Your task to perform on an android device: snooze an email in the gmail app Image 0: 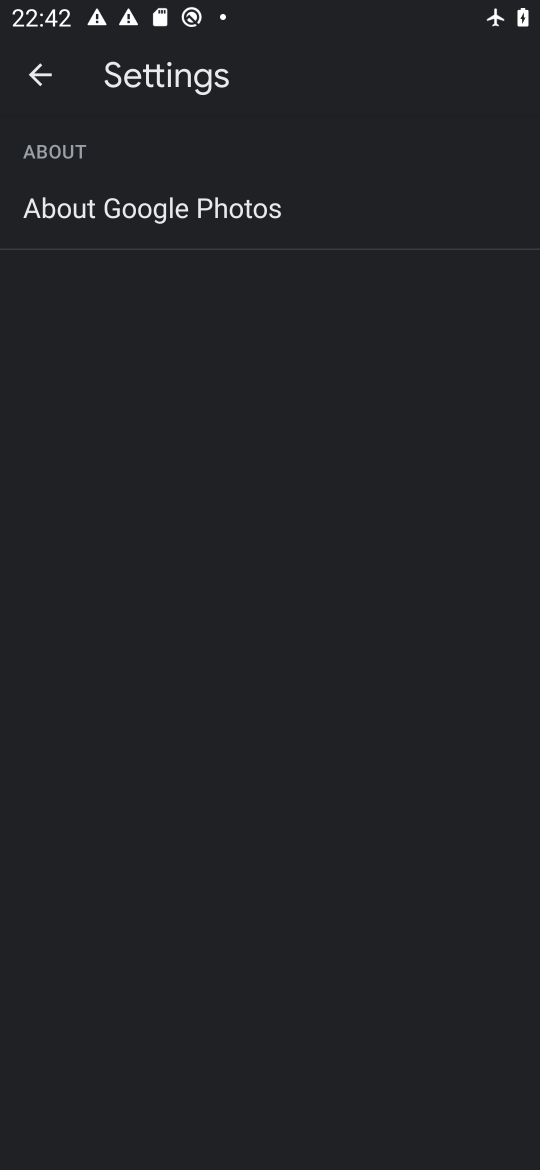
Step 0: press home button
Your task to perform on an android device: snooze an email in the gmail app Image 1: 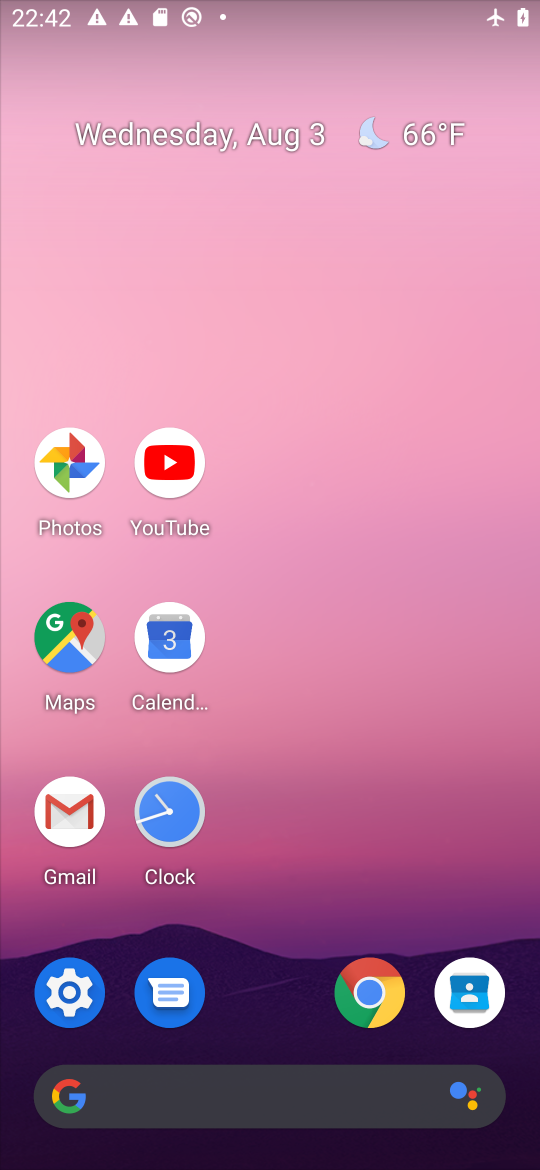
Step 1: click (66, 804)
Your task to perform on an android device: snooze an email in the gmail app Image 2: 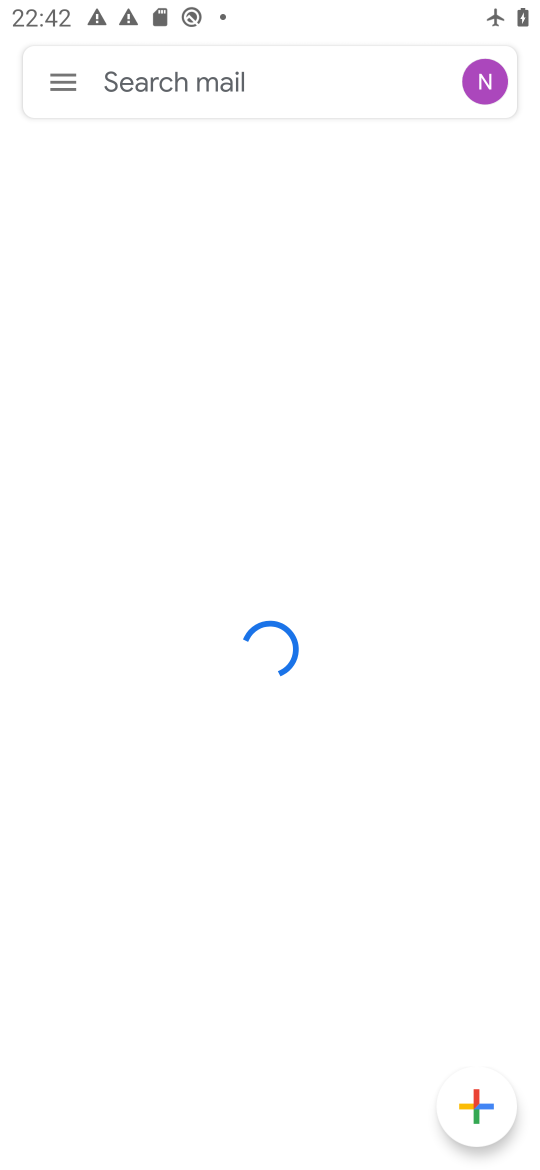
Step 2: click (74, 83)
Your task to perform on an android device: snooze an email in the gmail app Image 3: 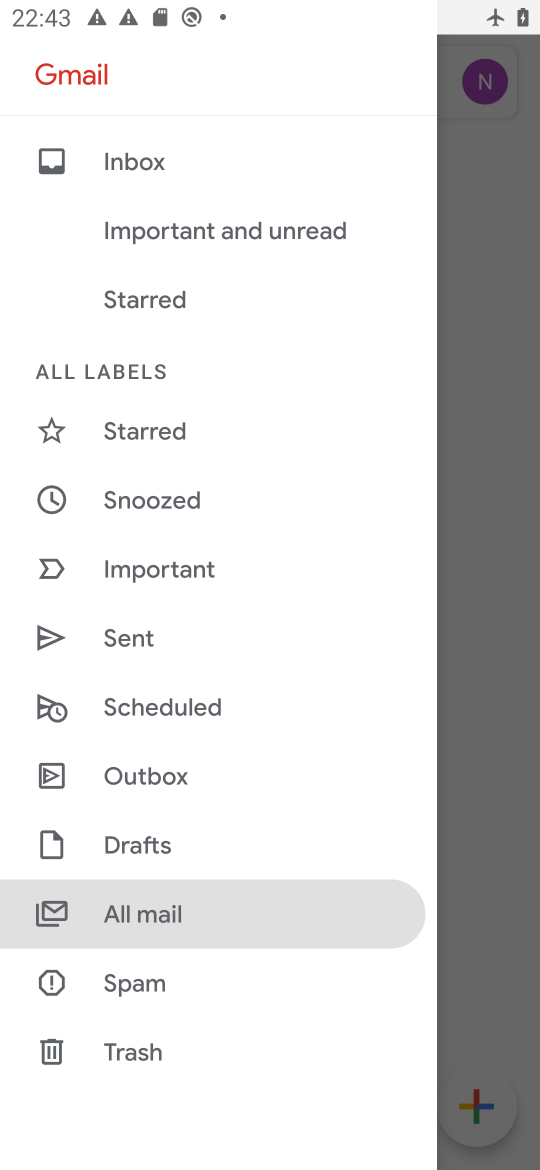
Step 3: click (142, 917)
Your task to perform on an android device: snooze an email in the gmail app Image 4: 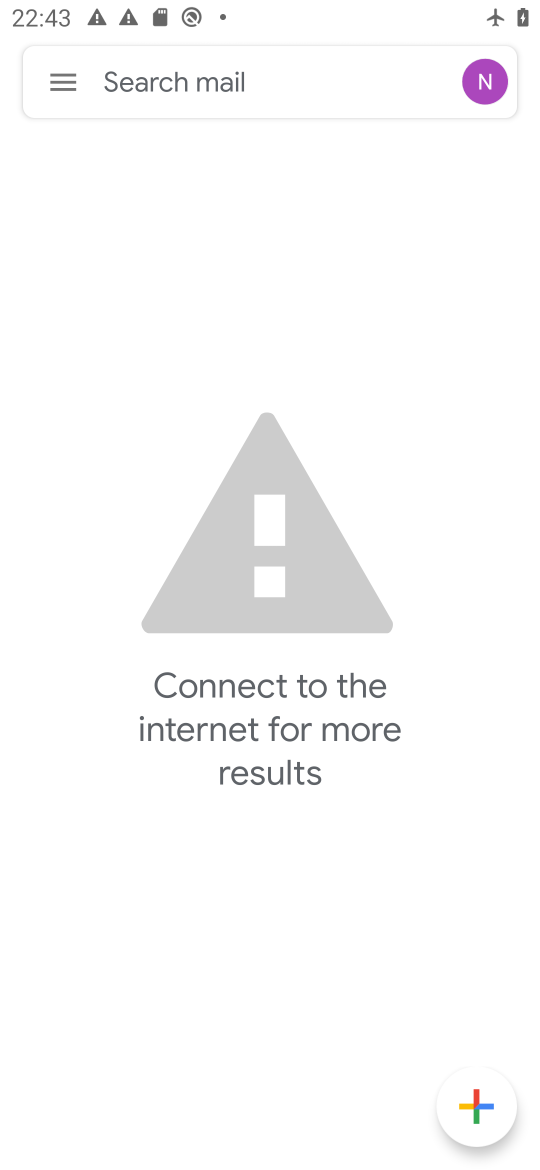
Step 4: task complete